Your task to perform on an android device: check storage Image 0: 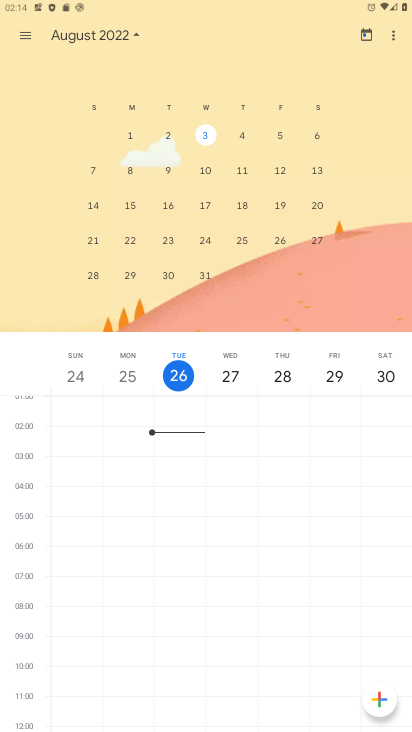
Step 0: press home button
Your task to perform on an android device: check storage Image 1: 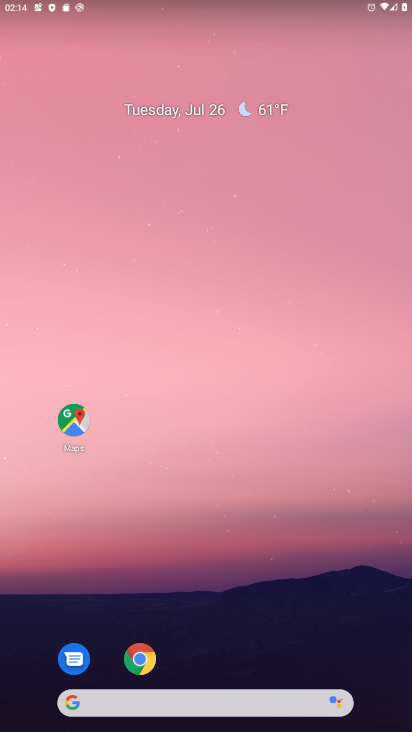
Step 1: drag from (289, 623) to (243, 95)
Your task to perform on an android device: check storage Image 2: 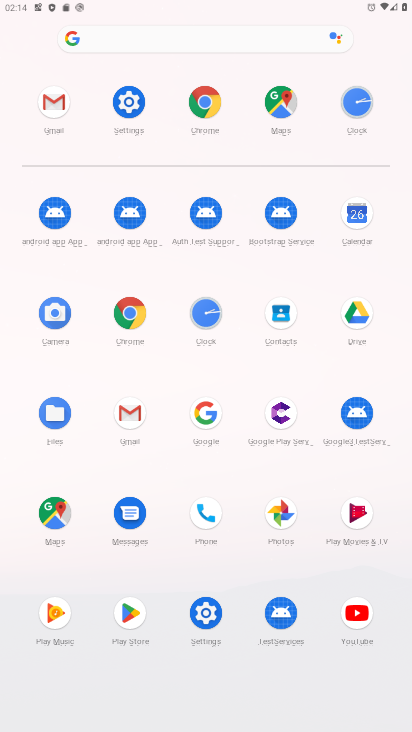
Step 2: click (139, 102)
Your task to perform on an android device: check storage Image 3: 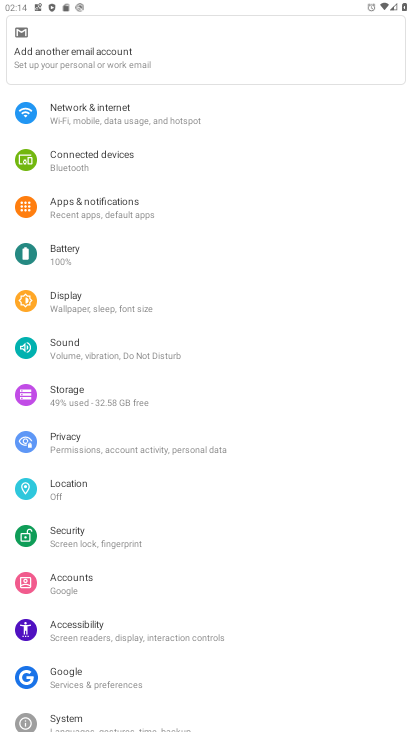
Step 3: click (105, 402)
Your task to perform on an android device: check storage Image 4: 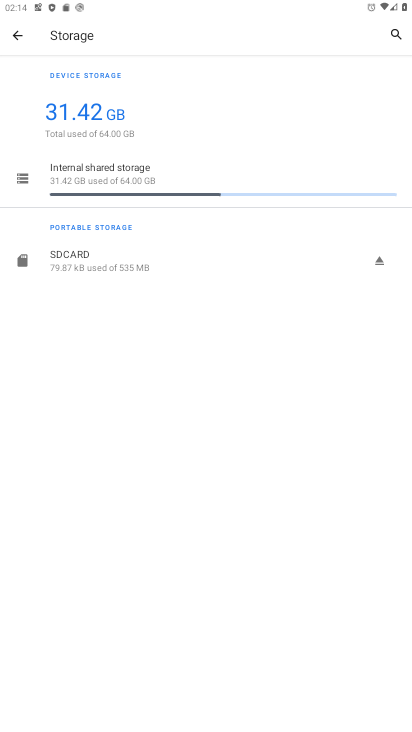
Step 4: task complete